Your task to perform on an android device: change the upload size in google photos Image 0: 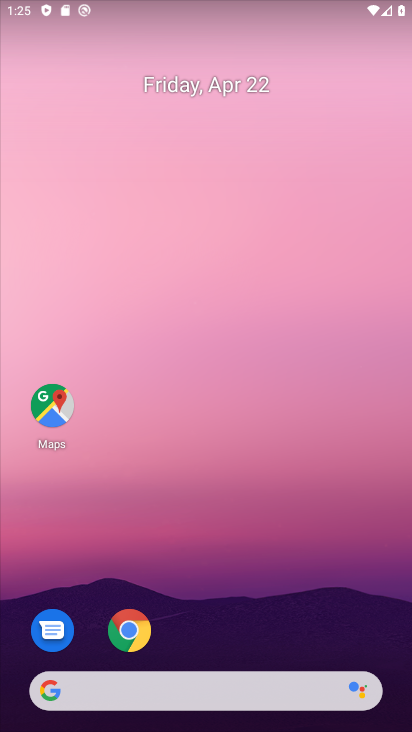
Step 0: drag from (202, 479) to (239, 29)
Your task to perform on an android device: change the upload size in google photos Image 1: 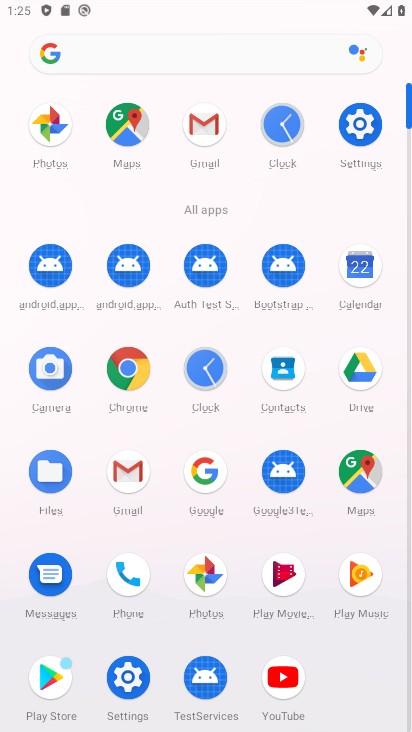
Step 1: click (202, 591)
Your task to perform on an android device: change the upload size in google photos Image 2: 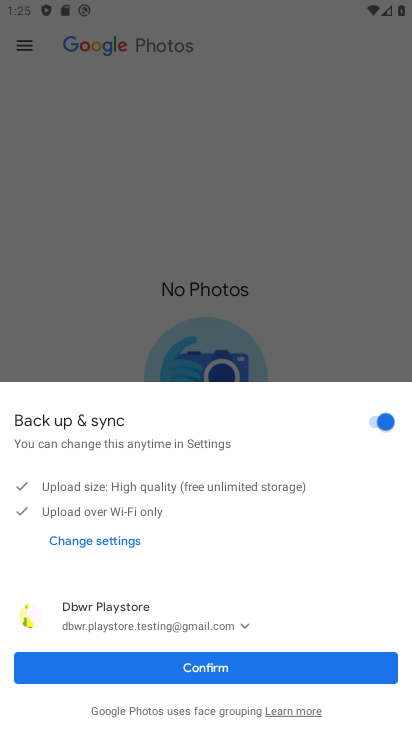
Step 2: click (26, 45)
Your task to perform on an android device: change the upload size in google photos Image 3: 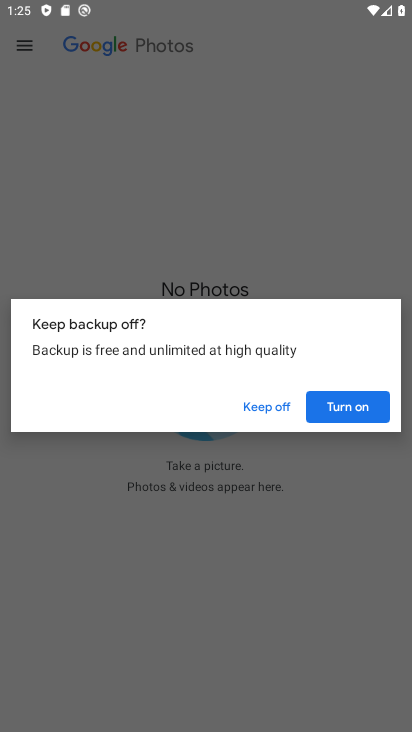
Step 3: click (326, 408)
Your task to perform on an android device: change the upload size in google photos Image 4: 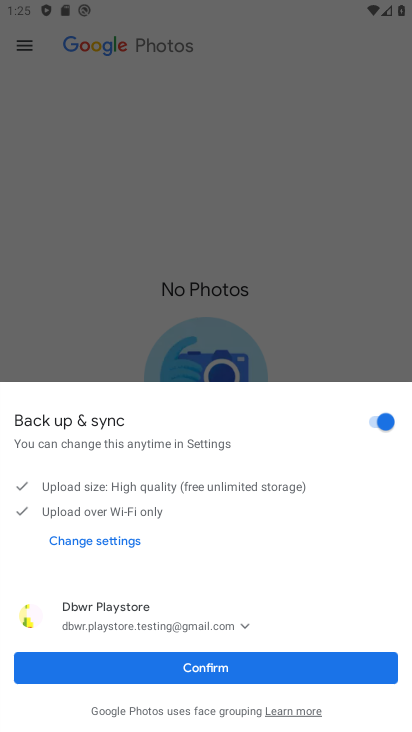
Step 4: click (240, 658)
Your task to perform on an android device: change the upload size in google photos Image 5: 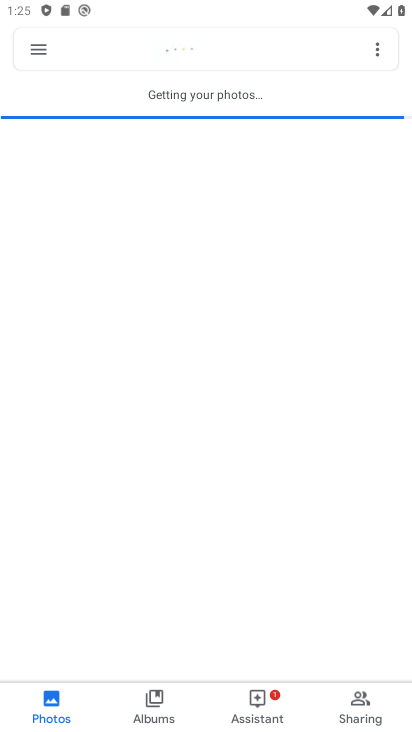
Step 5: click (40, 50)
Your task to perform on an android device: change the upload size in google photos Image 6: 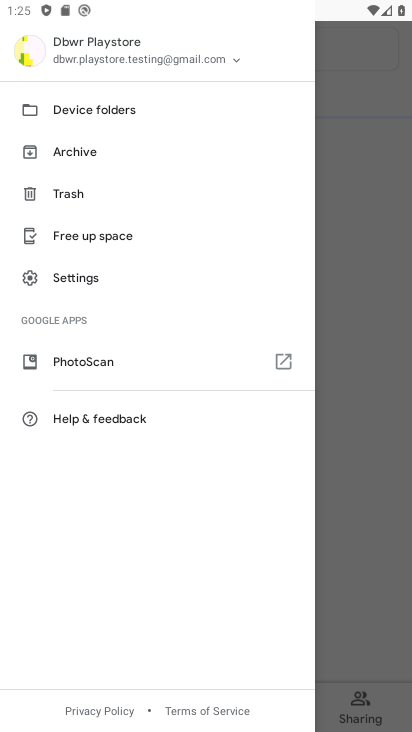
Step 6: click (84, 276)
Your task to perform on an android device: change the upload size in google photos Image 7: 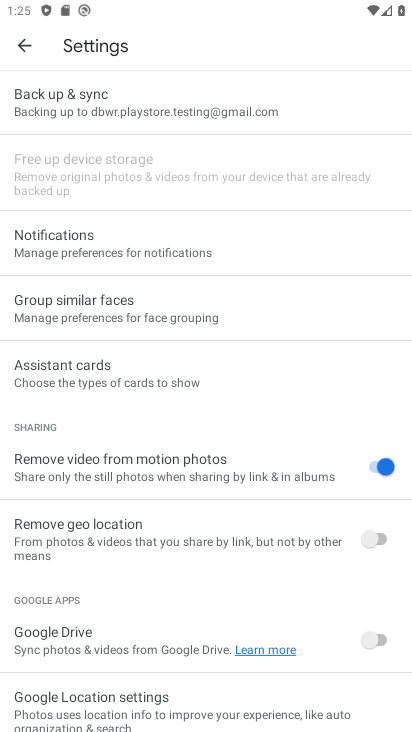
Step 7: click (154, 121)
Your task to perform on an android device: change the upload size in google photos Image 8: 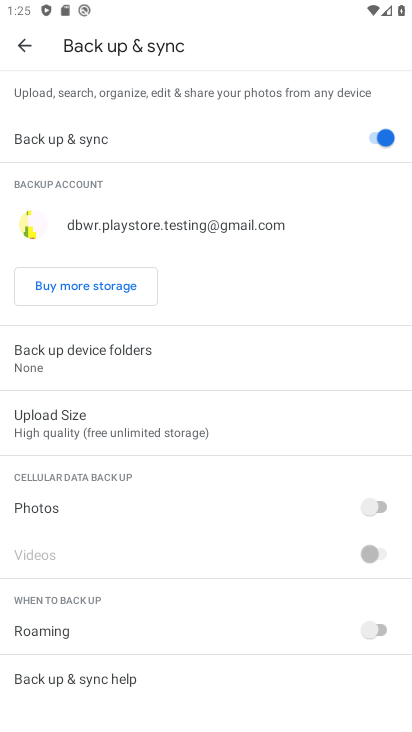
Step 8: click (99, 426)
Your task to perform on an android device: change the upload size in google photos Image 9: 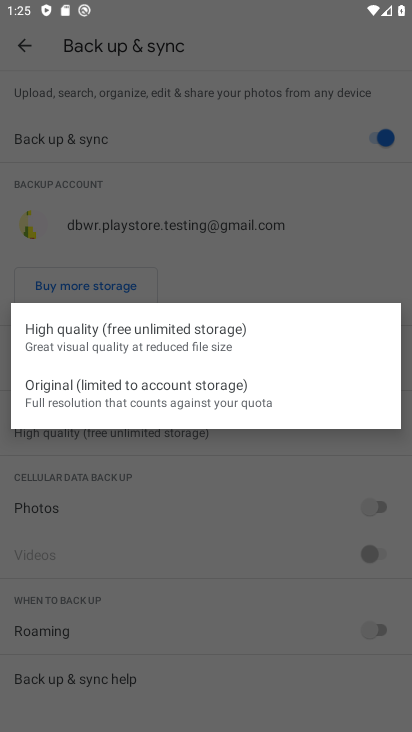
Step 9: click (133, 388)
Your task to perform on an android device: change the upload size in google photos Image 10: 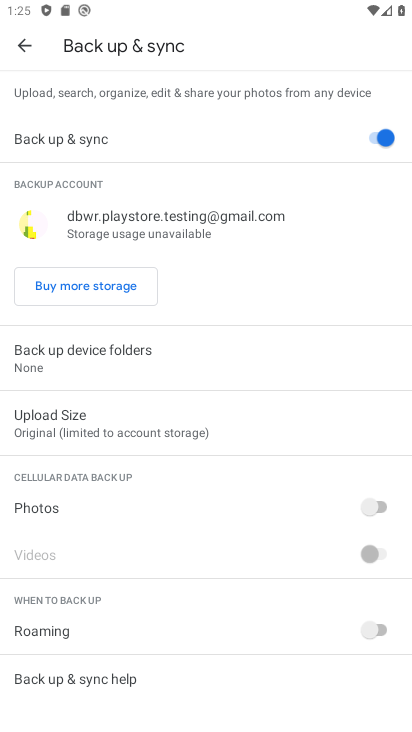
Step 10: task complete